Your task to perform on an android device: Go to Android settings Image 0: 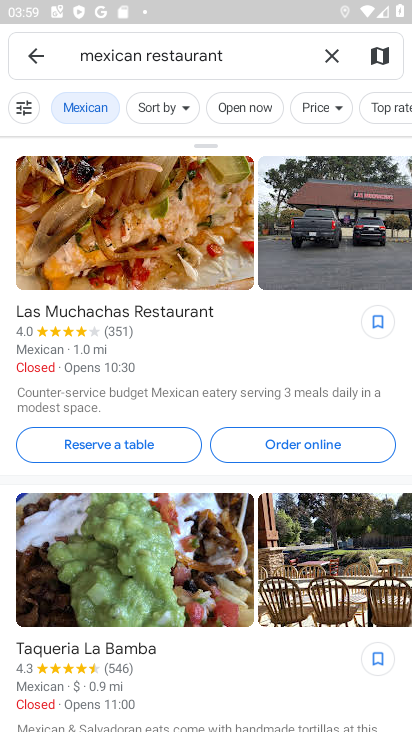
Step 0: press home button
Your task to perform on an android device: Go to Android settings Image 1: 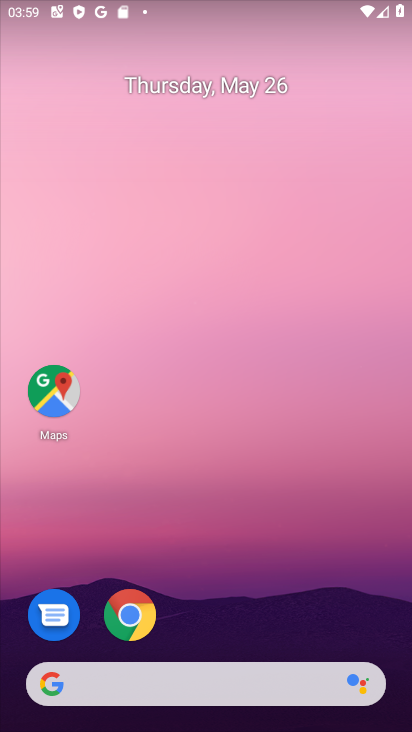
Step 1: drag from (200, 648) to (251, 80)
Your task to perform on an android device: Go to Android settings Image 2: 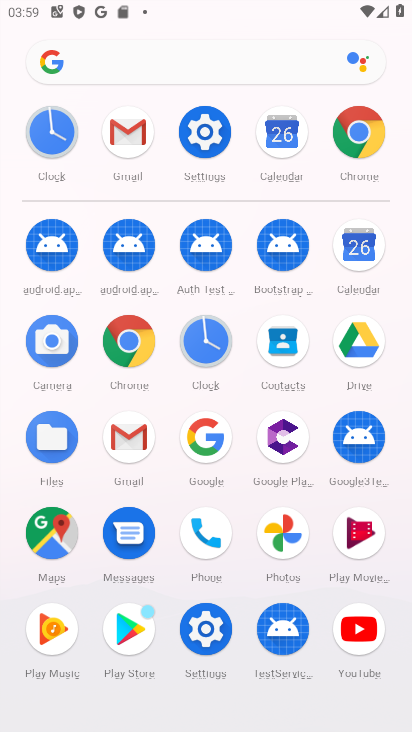
Step 2: click (207, 143)
Your task to perform on an android device: Go to Android settings Image 3: 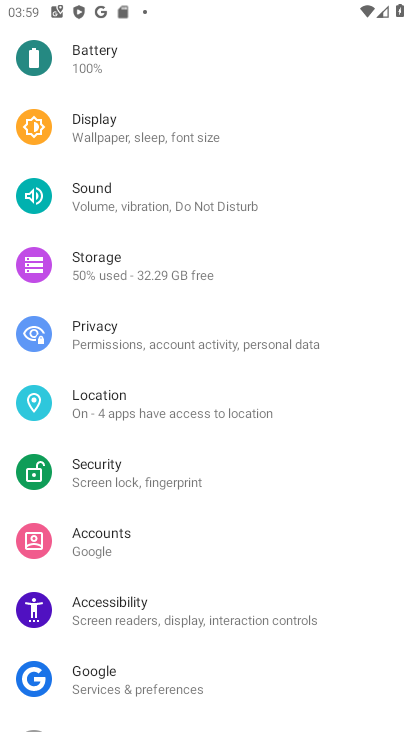
Step 3: drag from (175, 678) to (181, 168)
Your task to perform on an android device: Go to Android settings Image 4: 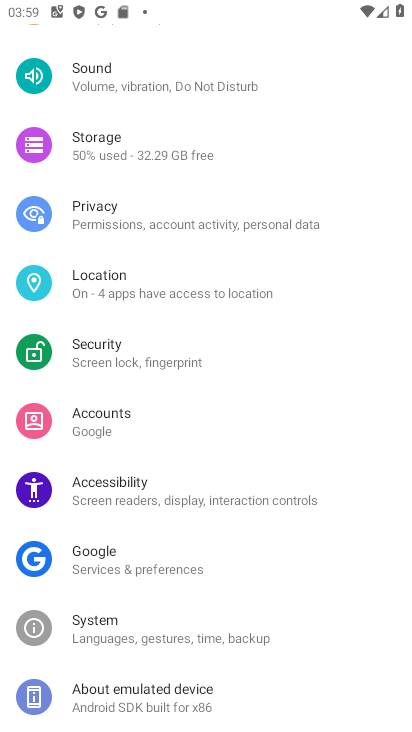
Step 4: drag from (173, 644) to (229, 358)
Your task to perform on an android device: Go to Android settings Image 5: 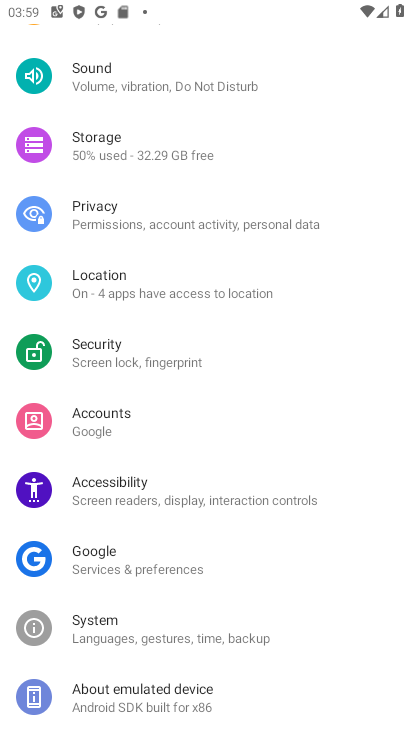
Step 5: click (152, 707)
Your task to perform on an android device: Go to Android settings Image 6: 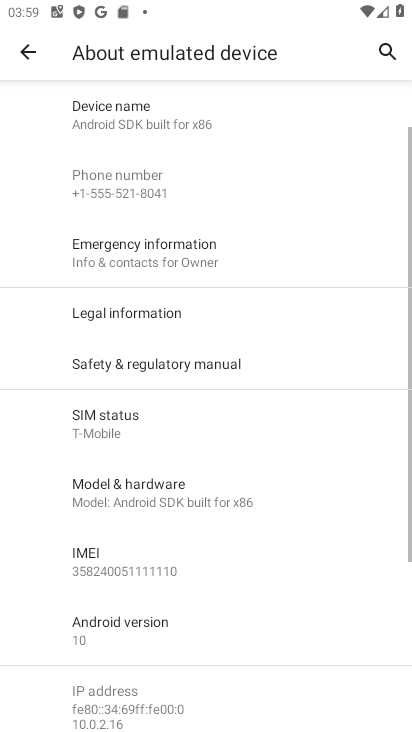
Step 6: click (141, 635)
Your task to perform on an android device: Go to Android settings Image 7: 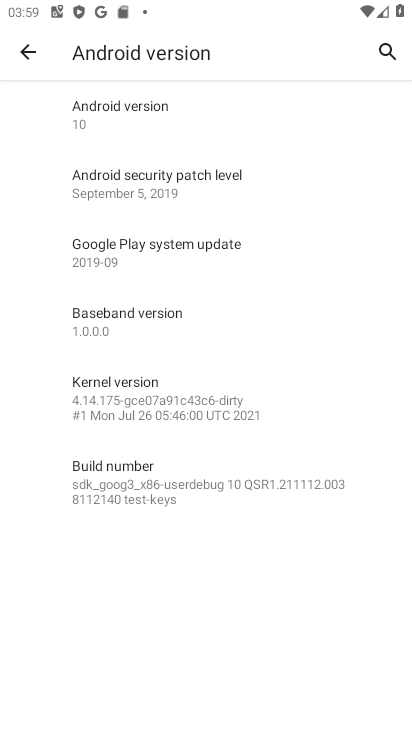
Step 7: task complete